Your task to perform on an android device: check android version Image 0: 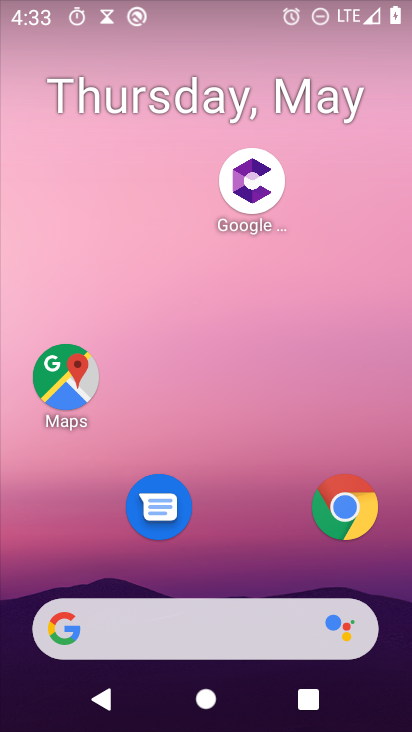
Step 0: drag from (225, 440) to (234, 157)
Your task to perform on an android device: check android version Image 1: 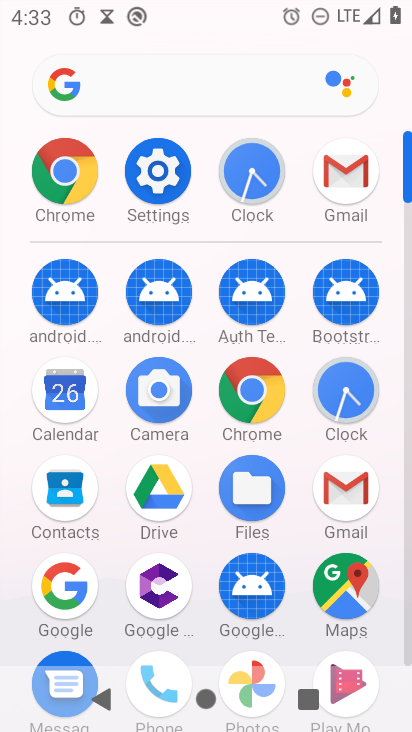
Step 1: click (163, 175)
Your task to perform on an android device: check android version Image 2: 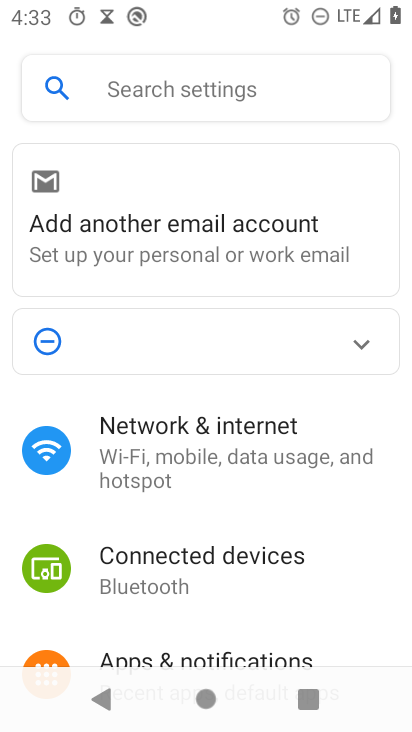
Step 2: drag from (268, 616) to (66, 9)
Your task to perform on an android device: check android version Image 3: 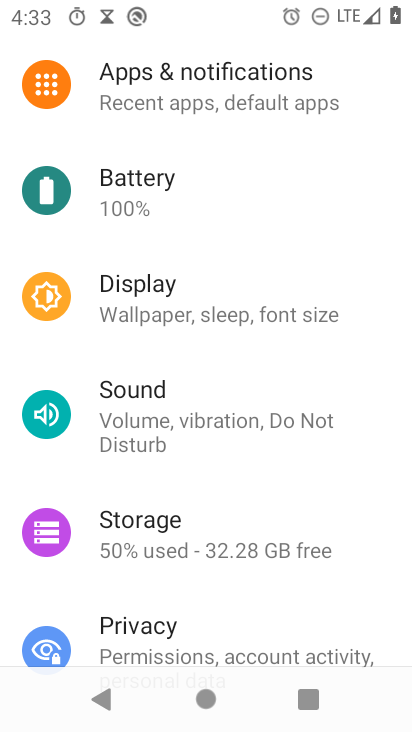
Step 3: drag from (302, 563) to (311, 13)
Your task to perform on an android device: check android version Image 4: 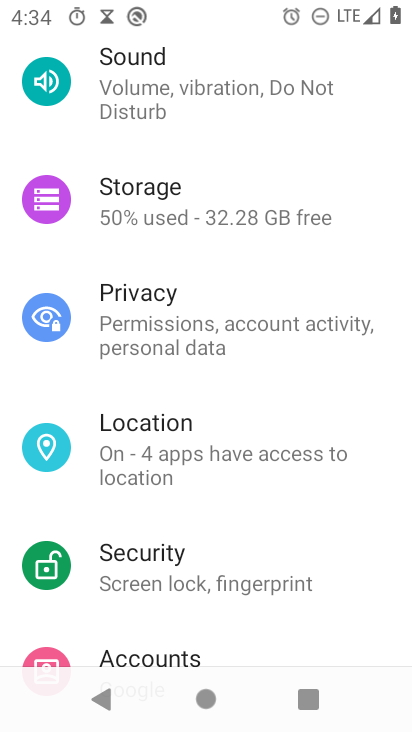
Step 4: drag from (347, 593) to (407, 366)
Your task to perform on an android device: check android version Image 5: 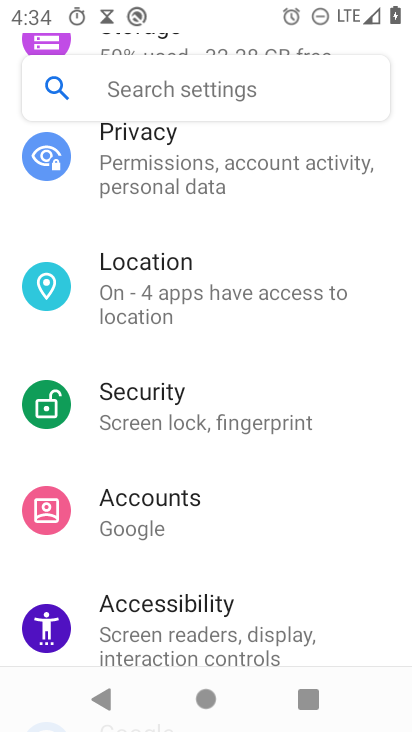
Step 5: drag from (313, 606) to (398, 28)
Your task to perform on an android device: check android version Image 6: 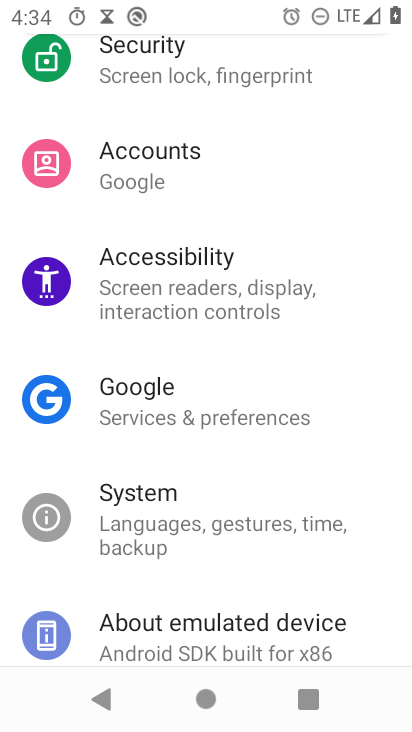
Step 6: click (248, 616)
Your task to perform on an android device: check android version Image 7: 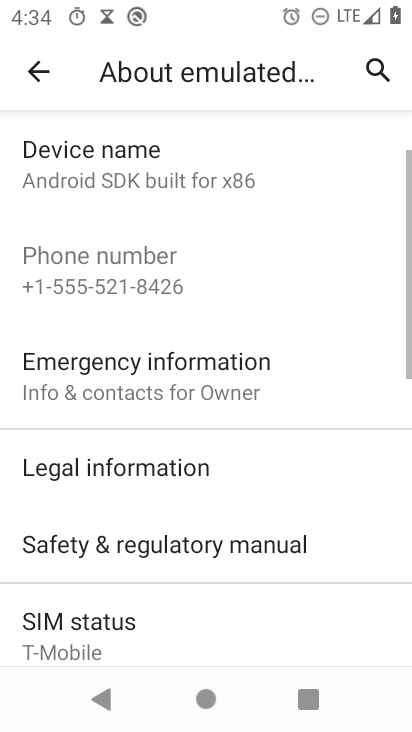
Step 7: task complete